Your task to perform on an android device: delete a single message in the gmail app Image 0: 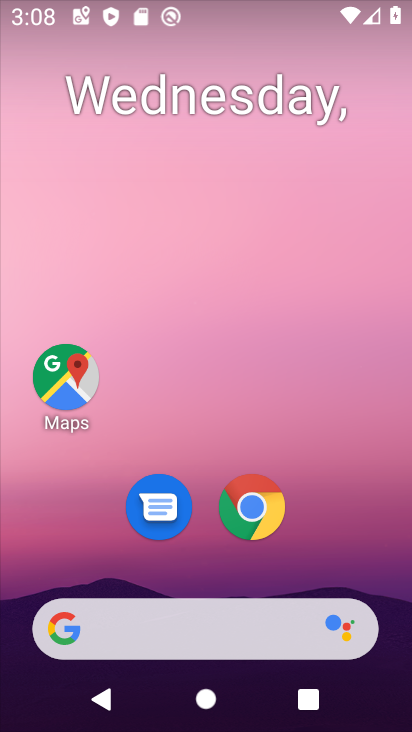
Step 0: drag from (331, 537) to (309, 63)
Your task to perform on an android device: delete a single message in the gmail app Image 1: 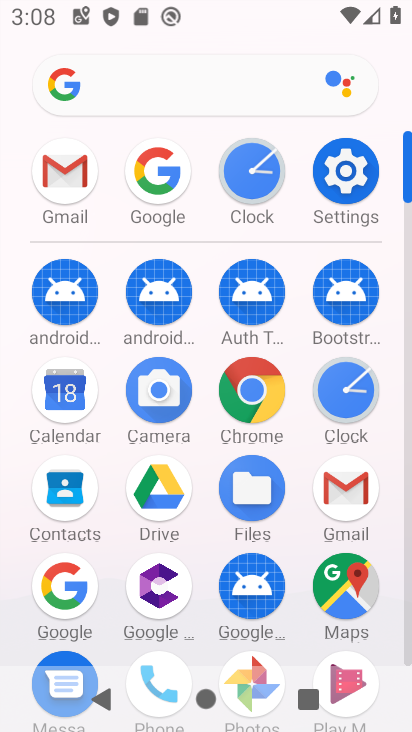
Step 1: click (61, 172)
Your task to perform on an android device: delete a single message in the gmail app Image 2: 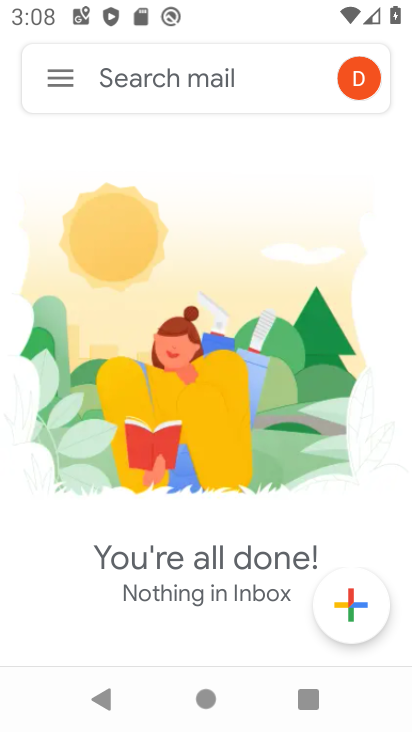
Step 2: click (42, 78)
Your task to perform on an android device: delete a single message in the gmail app Image 3: 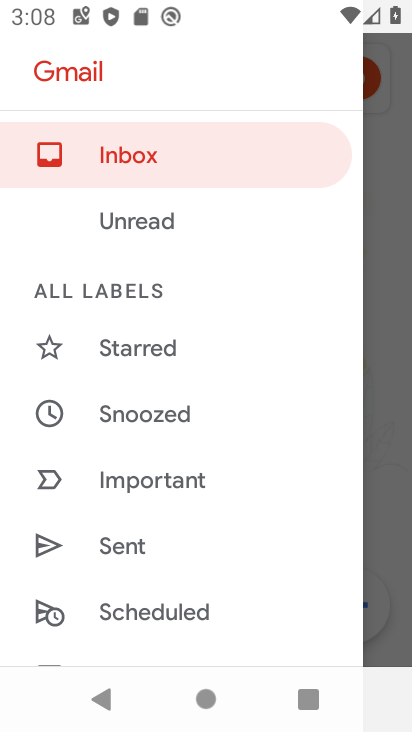
Step 3: drag from (240, 546) to (277, 212)
Your task to perform on an android device: delete a single message in the gmail app Image 4: 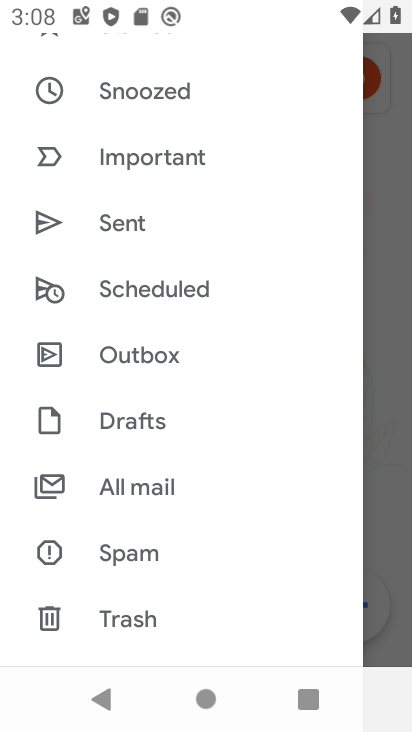
Step 4: click (189, 464)
Your task to perform on an android device: delete a single message in the gmail app Image 5: 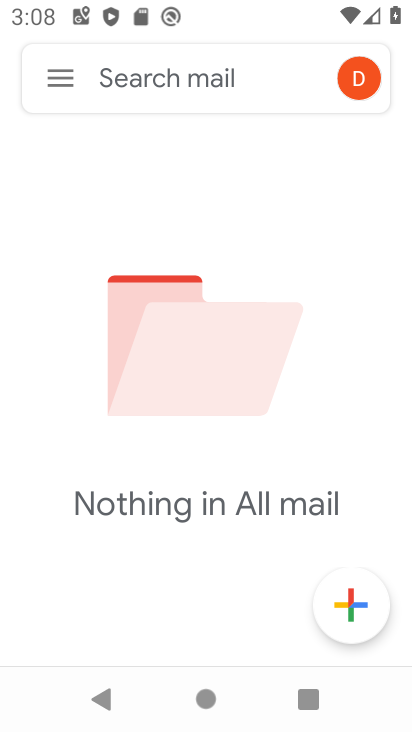
Step 5: task complete